Your task to perform on an android device: make emails show in primary in the gmail app Image 0: 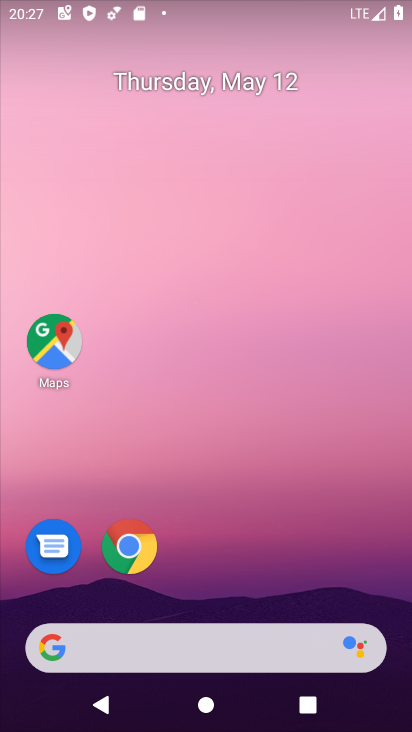
Step 0: drag from (252, 574) to (256, 138)
Your task to perform on an android device: make emails show in primary in the gmail app Image 1: 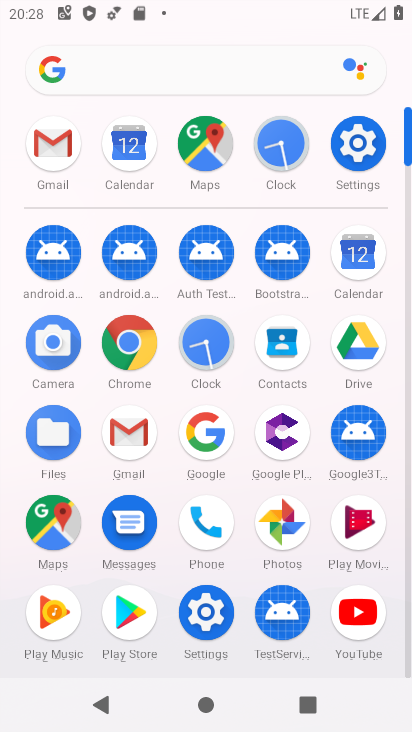
Step 1: click (55, 145)
Your task to perform on an android device: make emails show in primary in the gmail app Image 2: 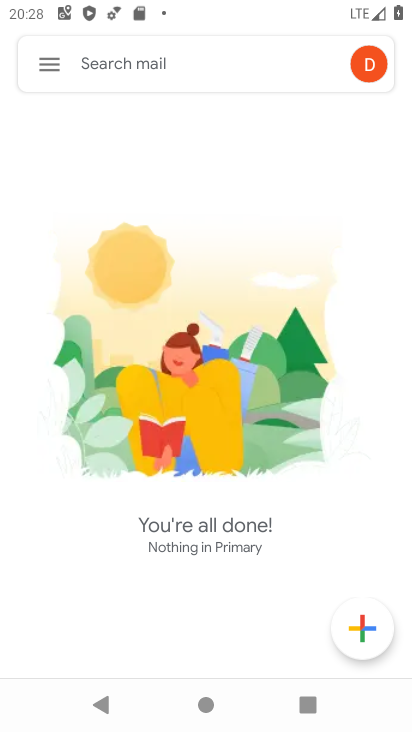
Step 2: click (42, 66)
Your task to perform on an android device: make emails show in primary in the gmail app Image 3: 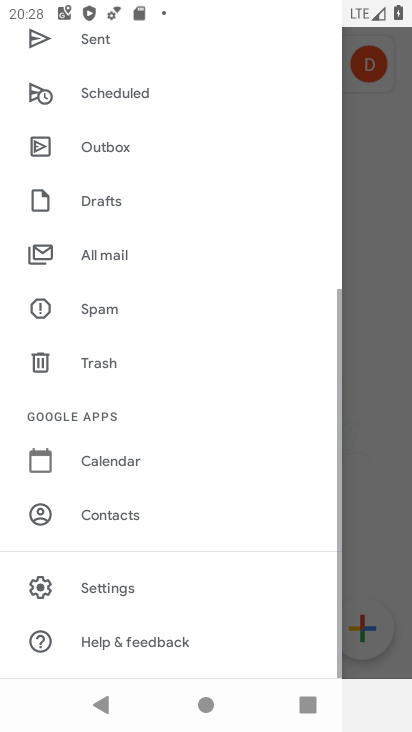
Step 3: click (126, 585)
Your task to perform on an android device: make emails show in primary in the gmail app Image 4: 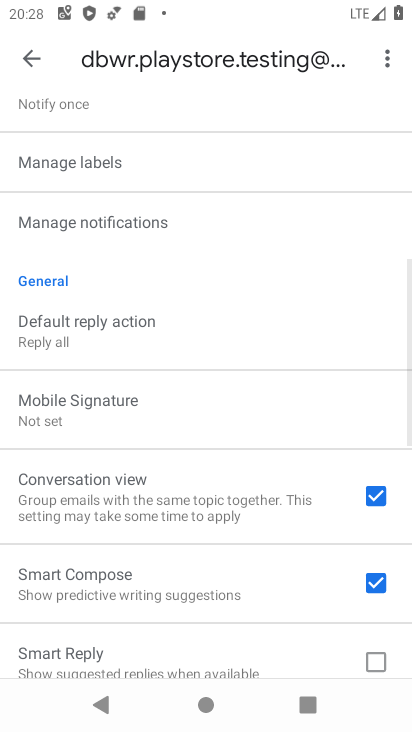
Step 4: task complete